Your task to perform on an android device: clear history in the chrome app Image 0: 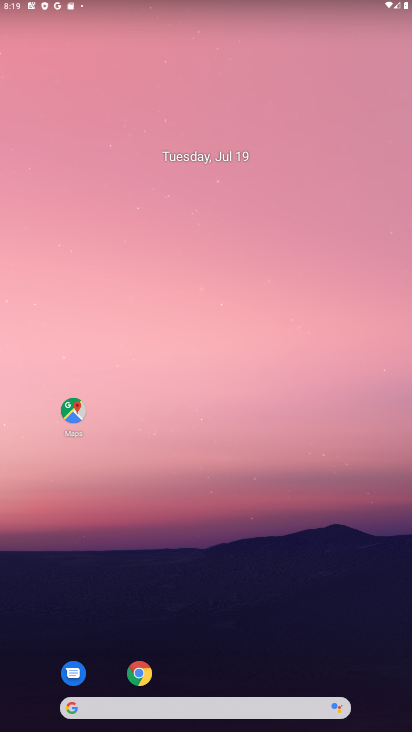
Step 0: click (138, 679)
Your task to perform on an android device: clear history in the chrome app Image 1: 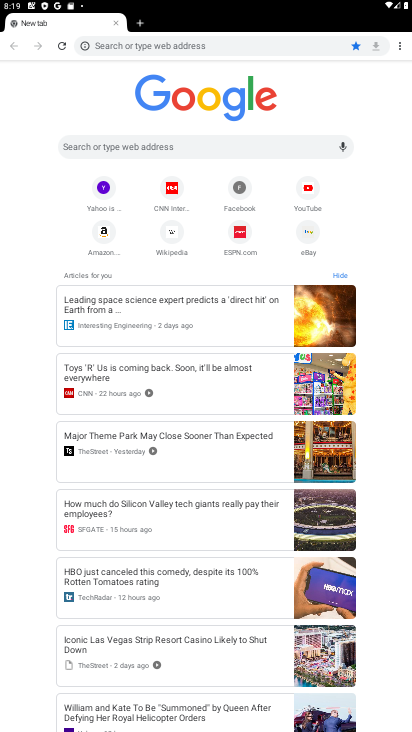
Step 1: click (393, 49)
Your task to perform on an android device: clear history in the chrome app Image 2: 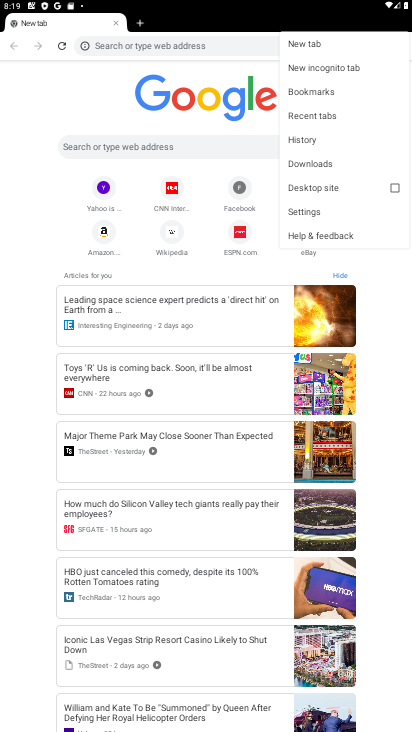
Step 2: click (312, 208)
Your task to perform on an android device: clear history in the chrome app Image 3: 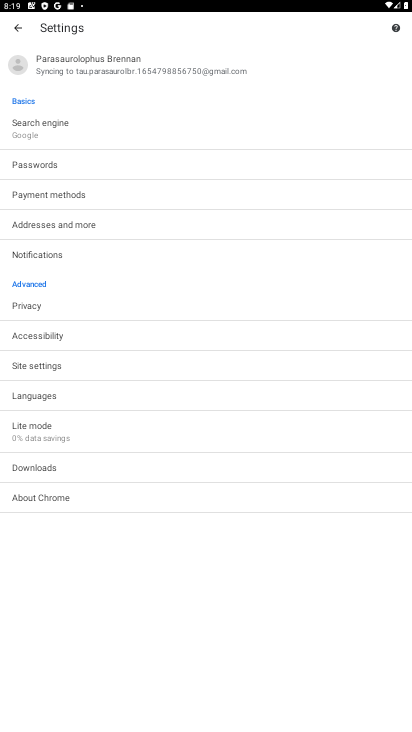
Step 3: click (4, 23)
Your task to perform on an android device: clear history in the chrome app Image 4: 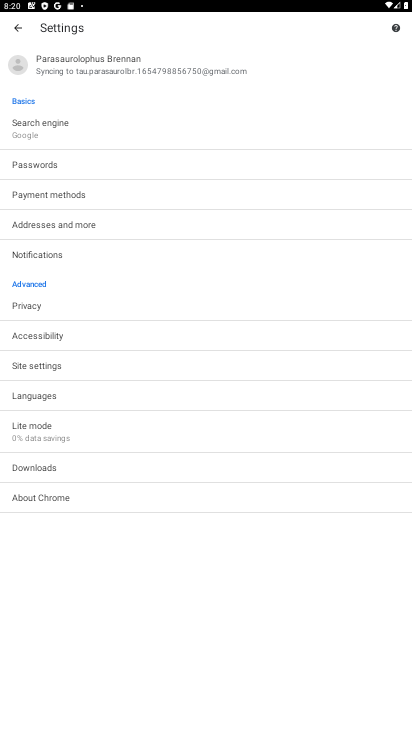
Step 4: task complete